Your task to perform on an android device: set default search engine in the chrome app Image 0: 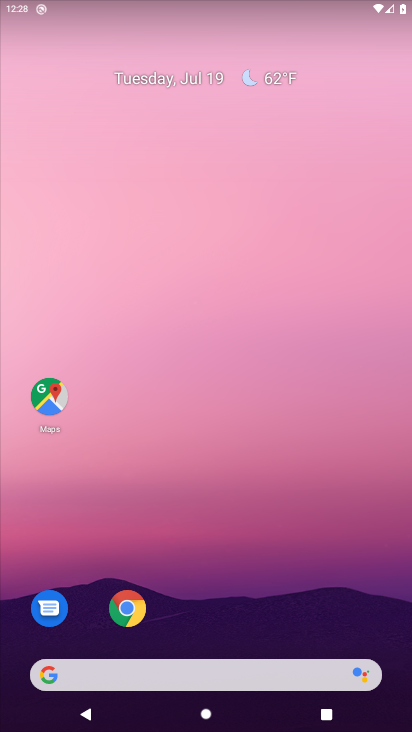
Step 0: click (125, 609)
Your task to perform on an android device: set default search engine in the chrome app Image 1: 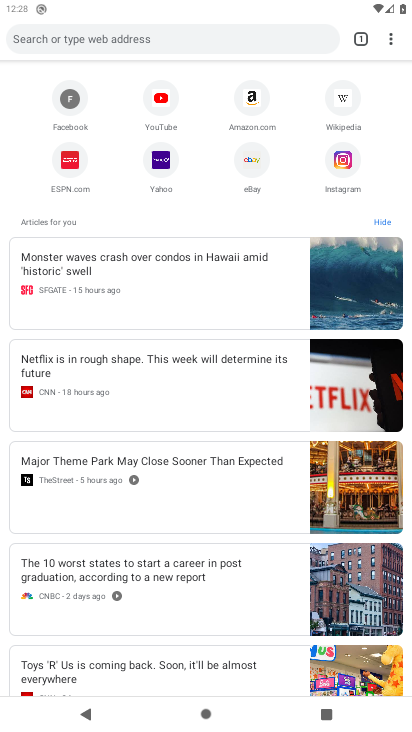
Step 1: click (392, 35)
Your task to perform on an android device: set default search engine in the chrome app Image 2: 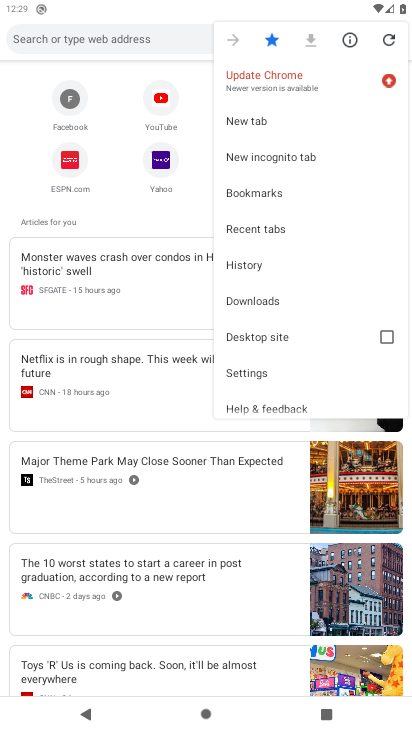
Step 2: click (269, 373)
Your task to perform on an android device: set default search engine in the chrome app Image 3: 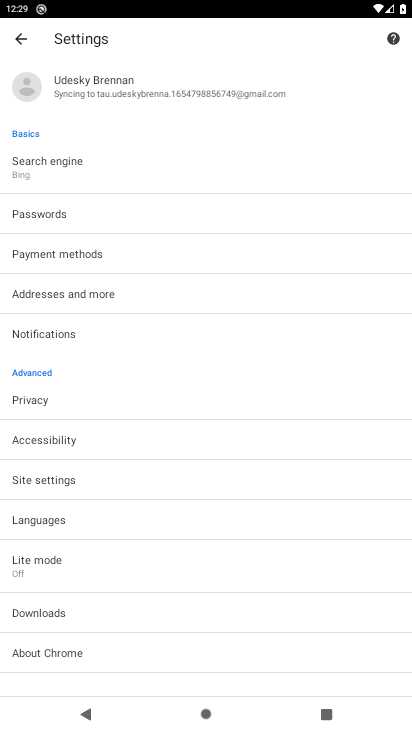
Step 3: click (69, 169)
Your task to perform on an android device: set default search engine in the chrome app Image 4: 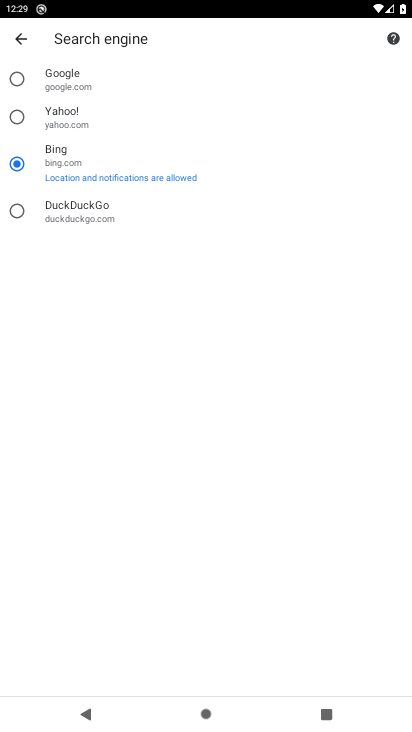
Step 4: click (18, 73)
Your task to perform on an android device: set default search engine in the chrome app Image 5: 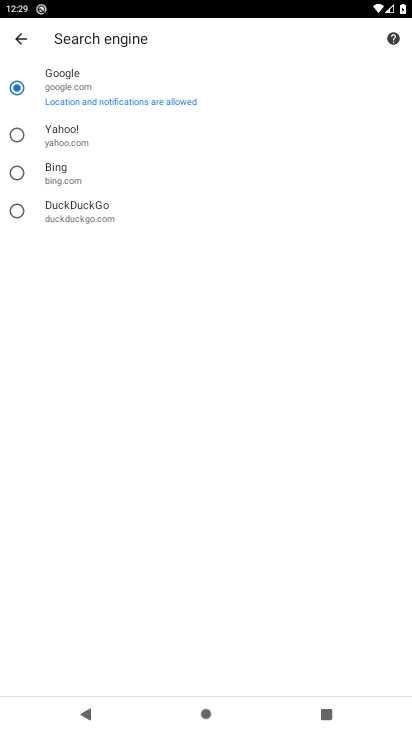
Step 5: task complete